Your task to perform on an android device: turn on showing notifications on the lock screen Image 0: 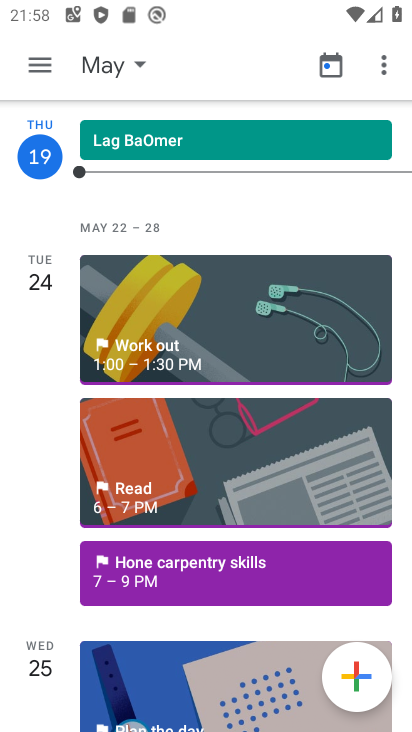
Step 0: press home button
Your task to perform on an android device: turn on showing notifications on the lock screen Image 1: 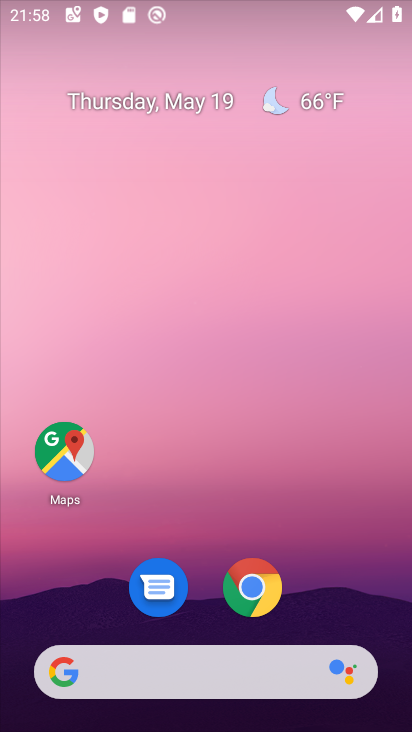
Step 1: drag from (292, 714) to (229, 258)
Your task to perform on an android device: turn on showing notifications on the lock screen Image 2: 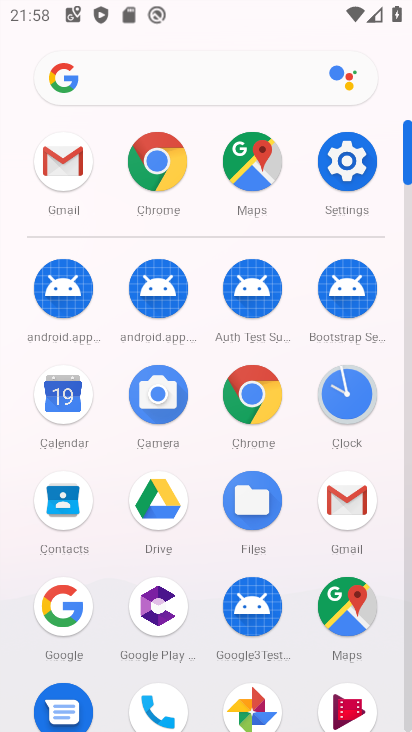
Step 2: click (334, 178)
Your task to perform on an android device: turn on showing notifications on the lock screen Image 3: 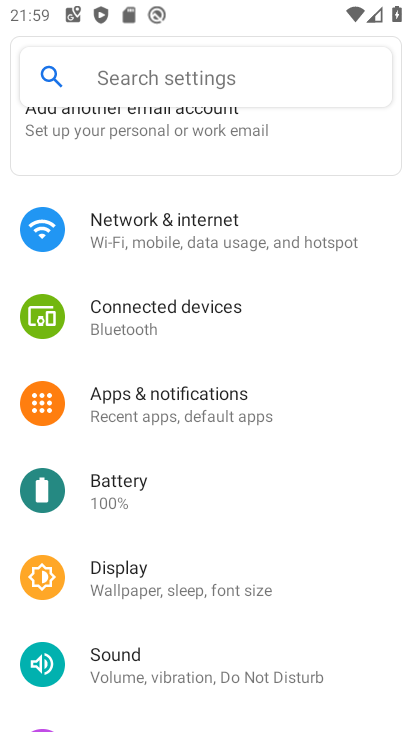
Step 3: click (139, 86)
Your task to perform on an android device: turn on showing notifications on the lock screen Image 4: 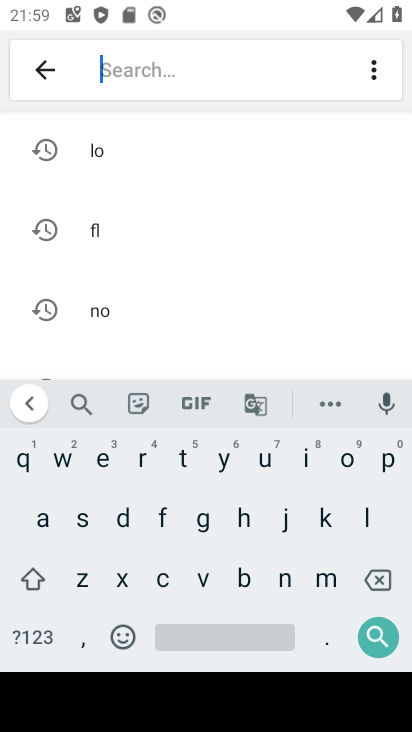
Step 4: click (280, 580)
Your task to perform on an android device: turn on showing notifications on the lock screen Image 5: 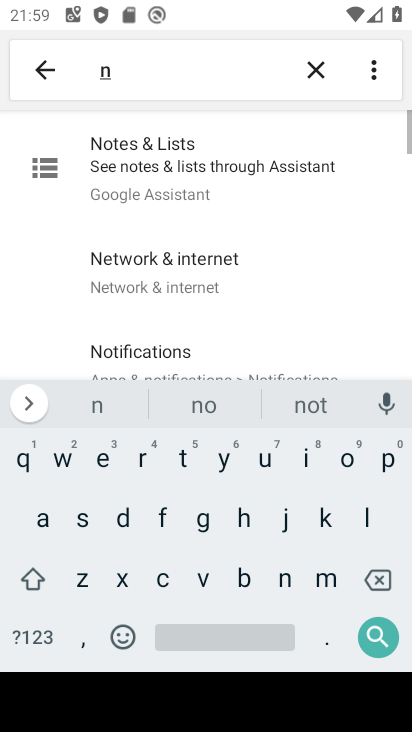
Step 5: click (349, 464)
Your task to perform on an android device: turn on showing notifications on the lock screen Image 6: 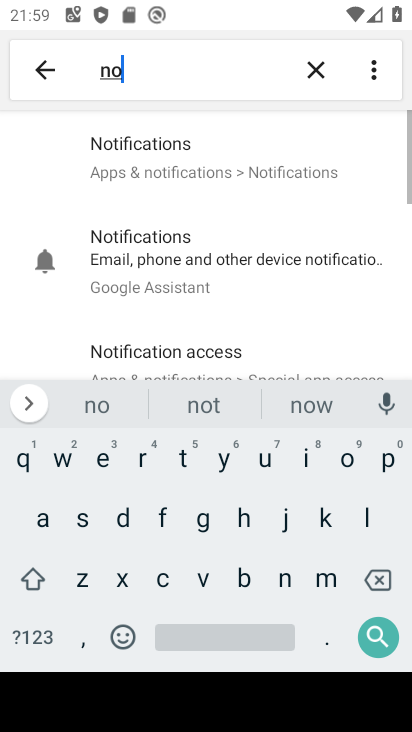
Step 6: click (182, 167)
Your task to perform on an android device: turn on showing notifications on the lock screen Image 7: 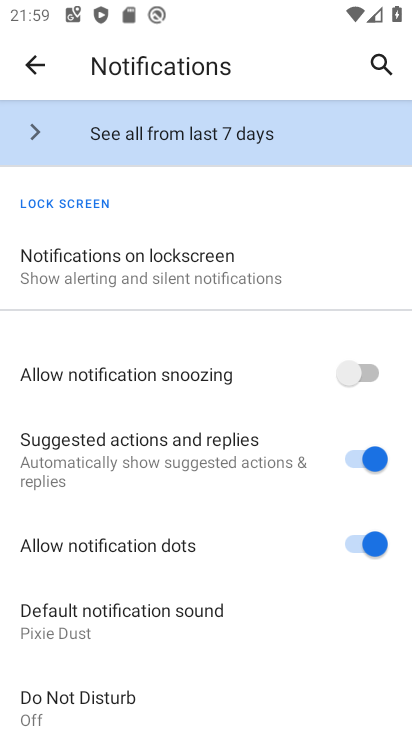
Step 7: click (239, 268)
Your task to perform on an android device: turn on showing notifications on the lock screen Image 8: 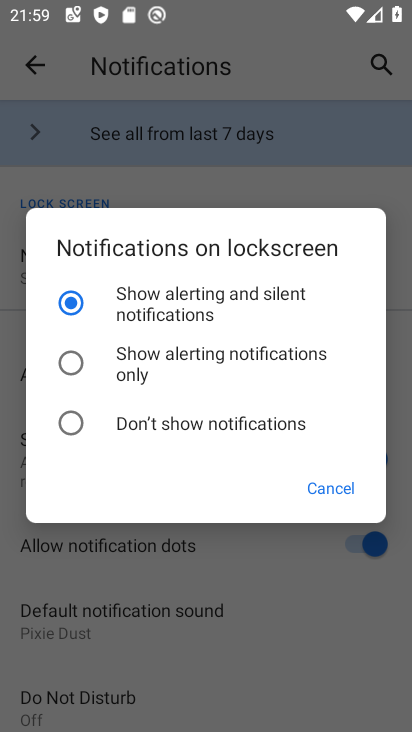
Step 8: task complete